Your task to perform on an android device: turn on location history Image 0: 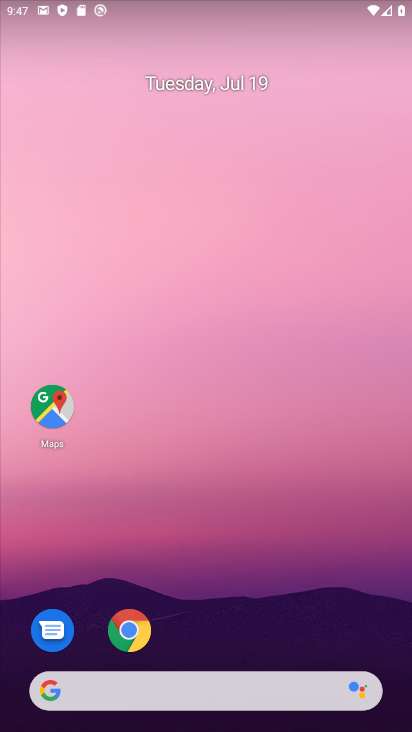
Step 0: click (61, 416)
Your task to perform on an android device: turn on location history Image 1: 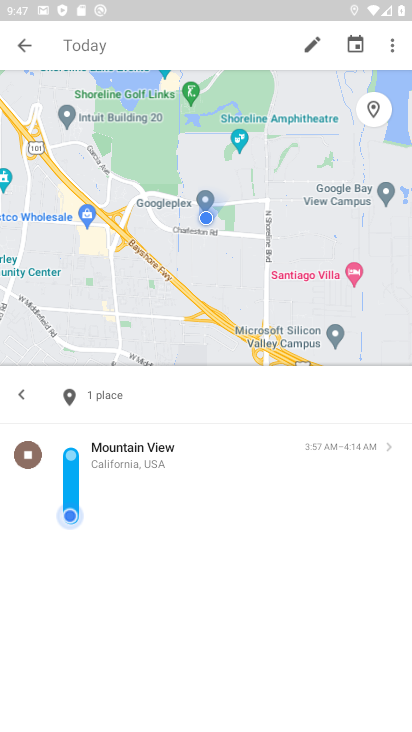
Step 1: click (397, 45)
Your task to perform on an android device: turn on location history Image 2: 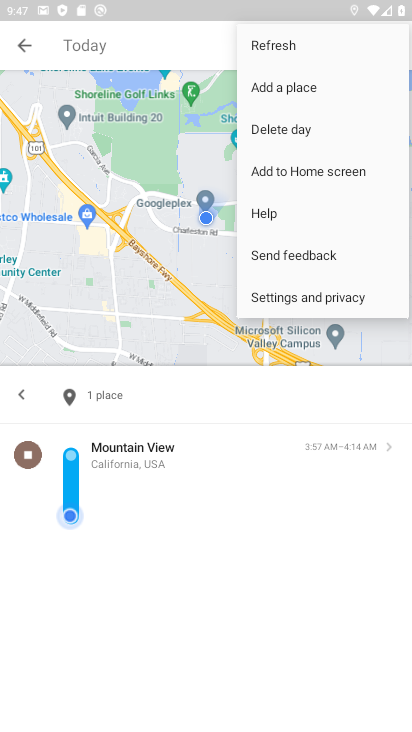
Step 2: click (319, 294)
Your task to perform on an android device: turn on location history Image 3: 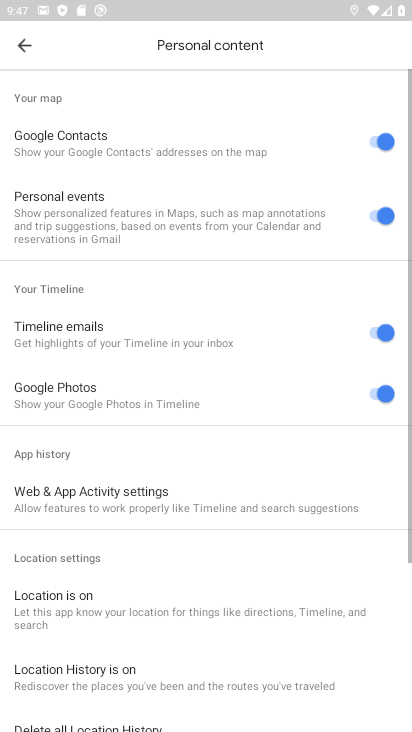
Step 3: drag from (249, 596) to (236, 310)
Your task to perform on an android device: turn on location history Image 4: 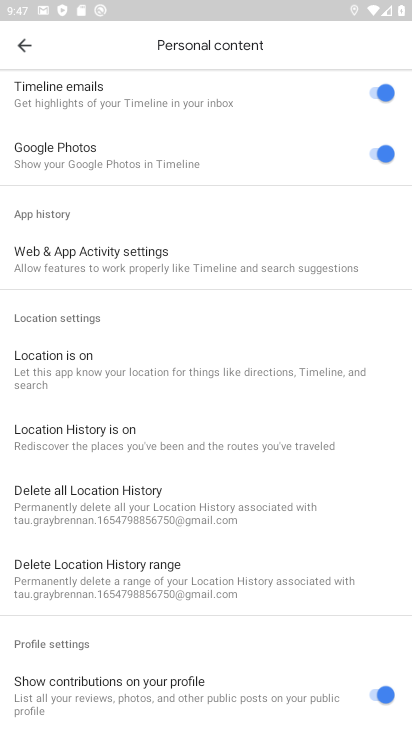
Step 4: click (228, 444)
Your task to perform on an android device: turn on location history Image 5: 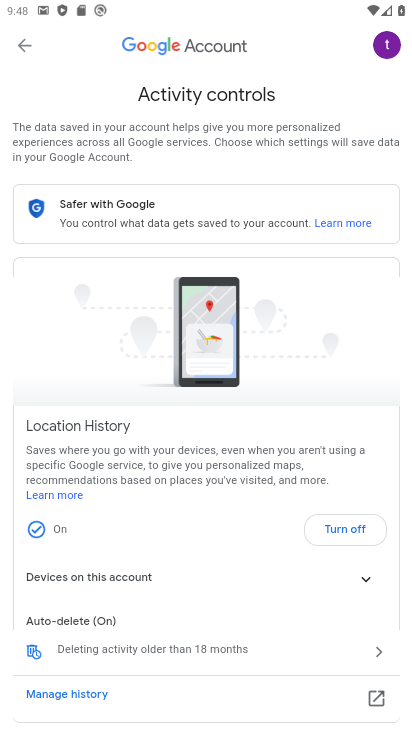
Step 5: task complete